Your task to perform on an android device: Check out the new nike air max 2020. Image 0: 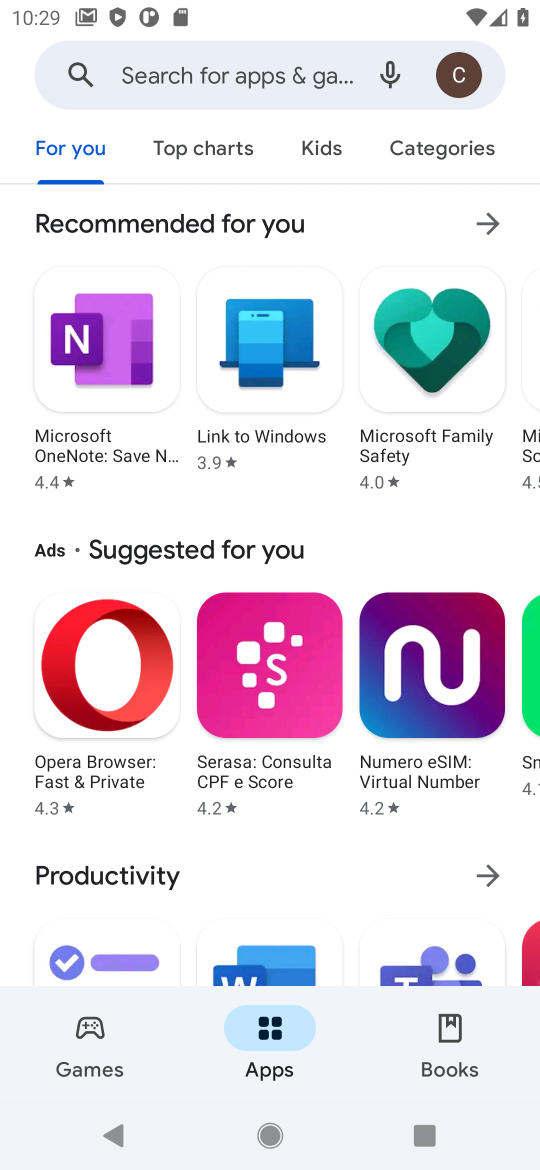
Step 0: press back button
Your task to perform on an android device: Check out the new nike air max 2020. Image 1: 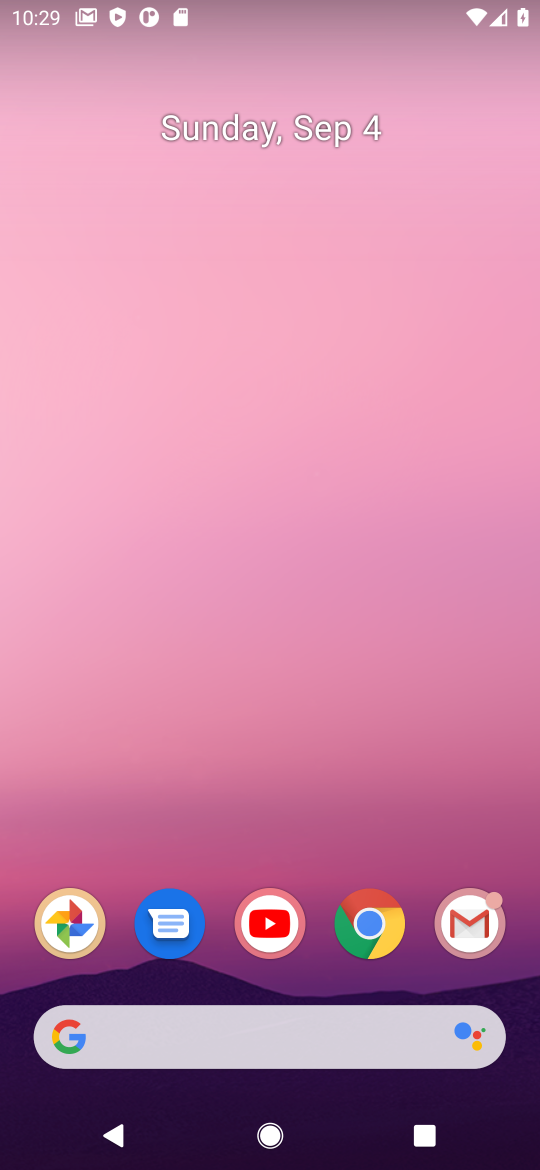
Step 1: click (176, 1052)
Your task to perform on an android device: Check out the new nike air max 2020. Image 2: 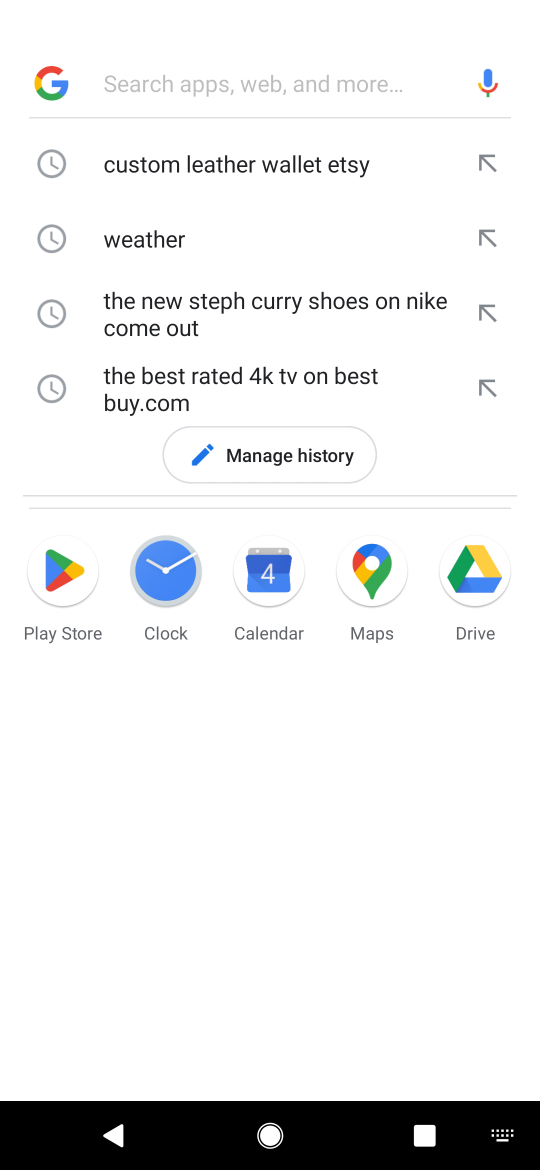
Step 2: press back button
Your task to perform on an android device: Check out the new nike air max 2020. Image 3: 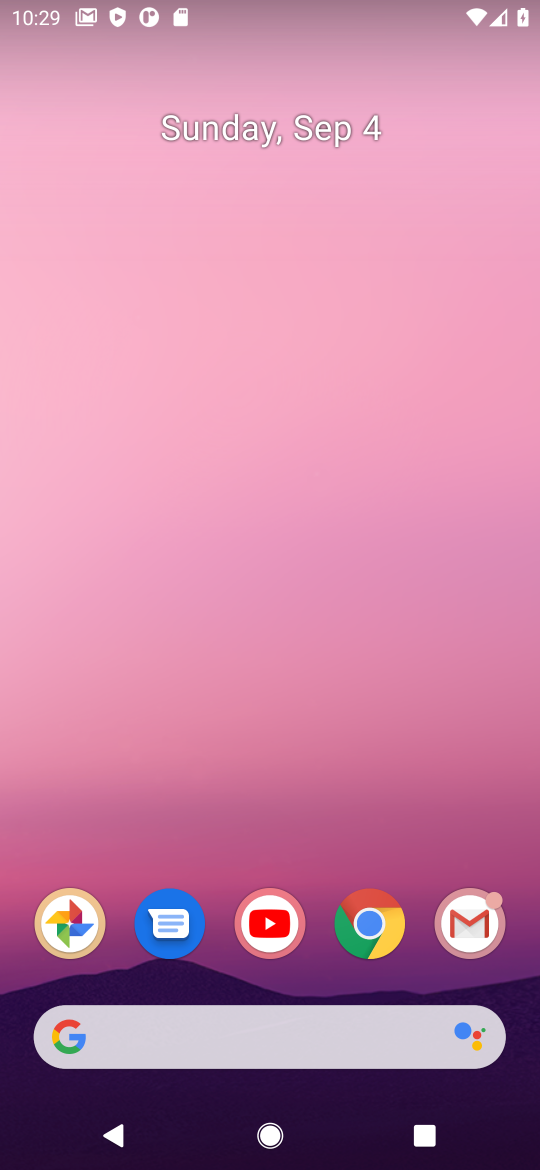
Step 3: click (361, 929)
Your task to perform on an android device: Check out the new nike air max 2020. Image 4: 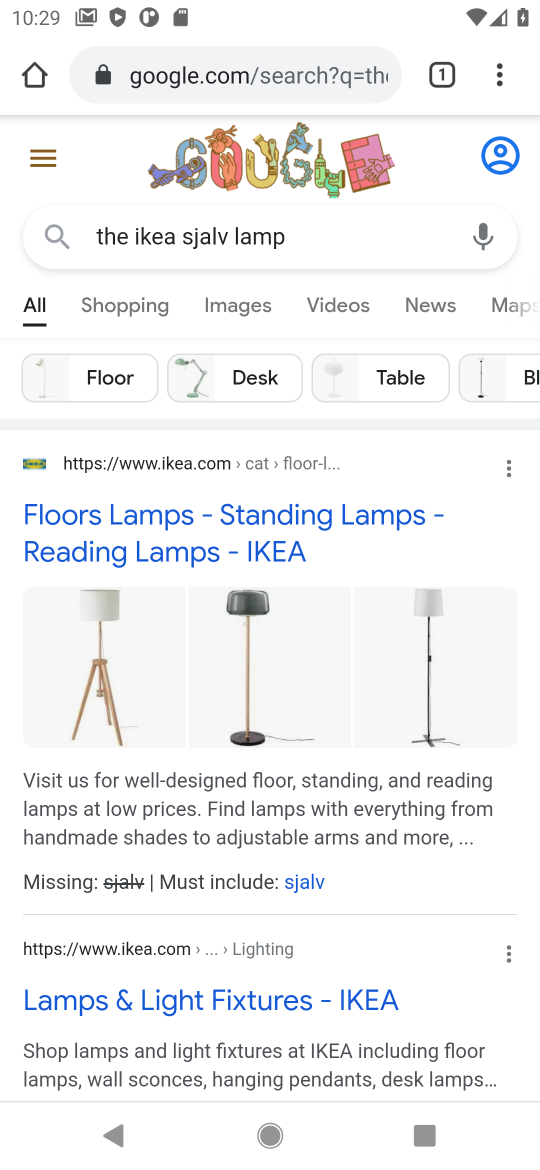
Step 4: click (222, 68)
Your task to perform on an android device: Check out the new nike air max 2020. Image 5: 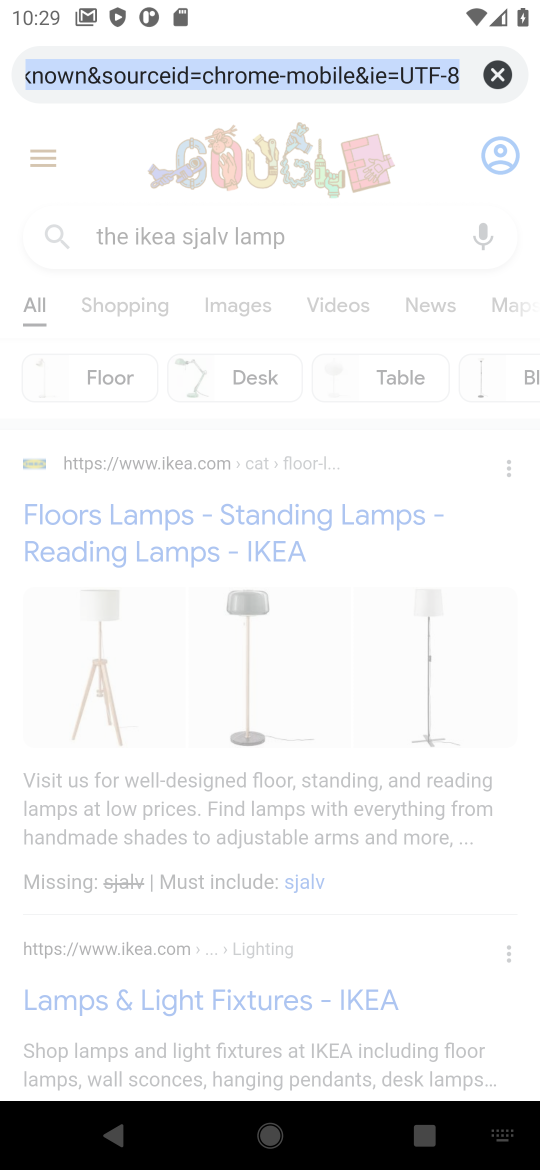
Step 5: click (497, 73)
Your task to perform on an android device: Check out the new nike air max 2020. Image 6: 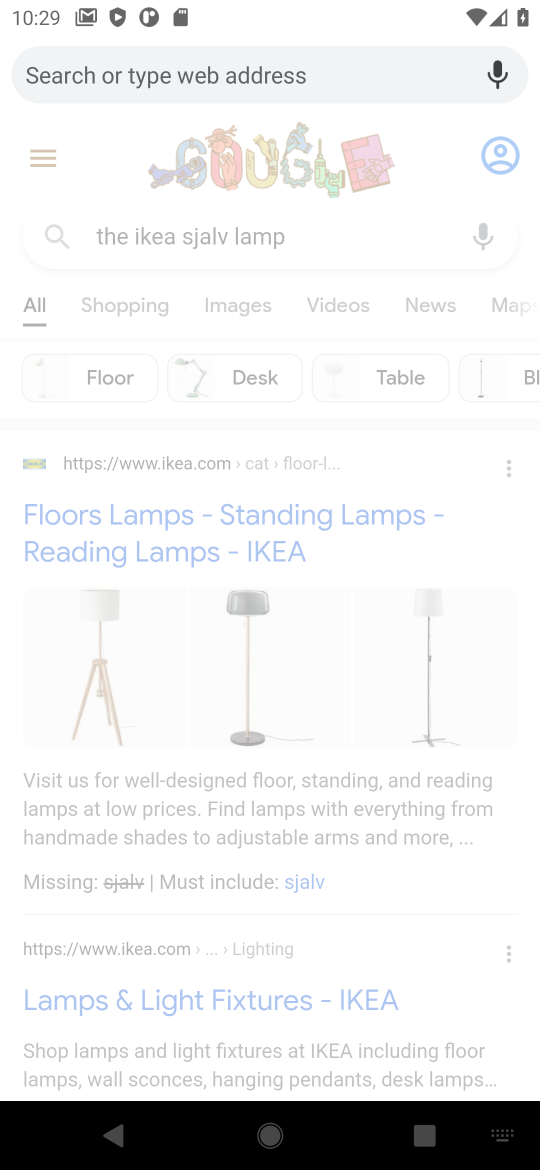
Step 6: type "the new nike air max 2020."
Your task to perform on an android device: Check out the new nike air max 2020. Image 7: 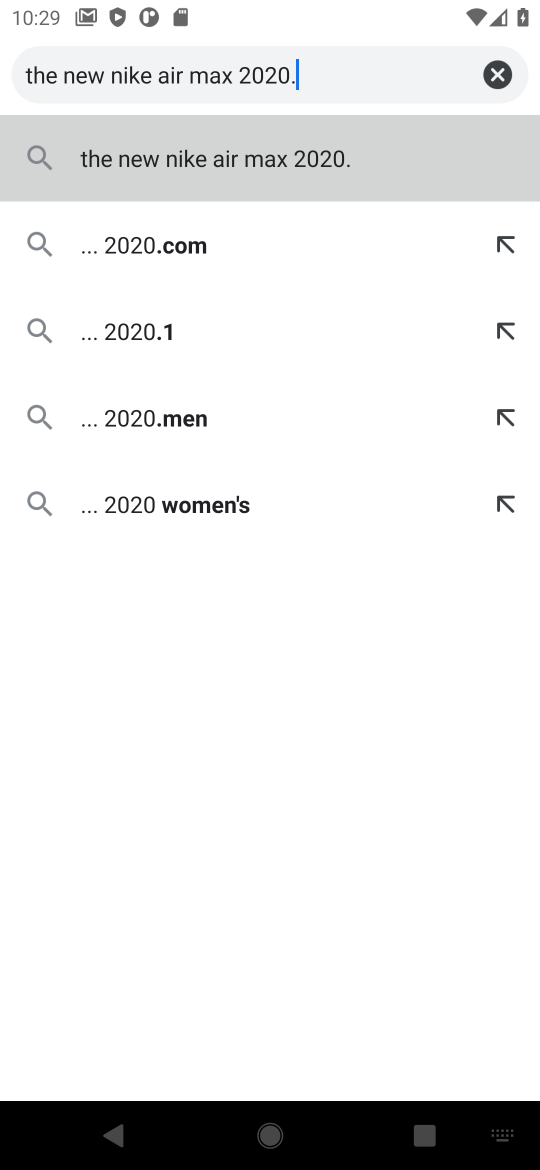
Step 7: click (246, 155)
Your task to perform on an android device: Check out the new nike air max 2020. Image 8: 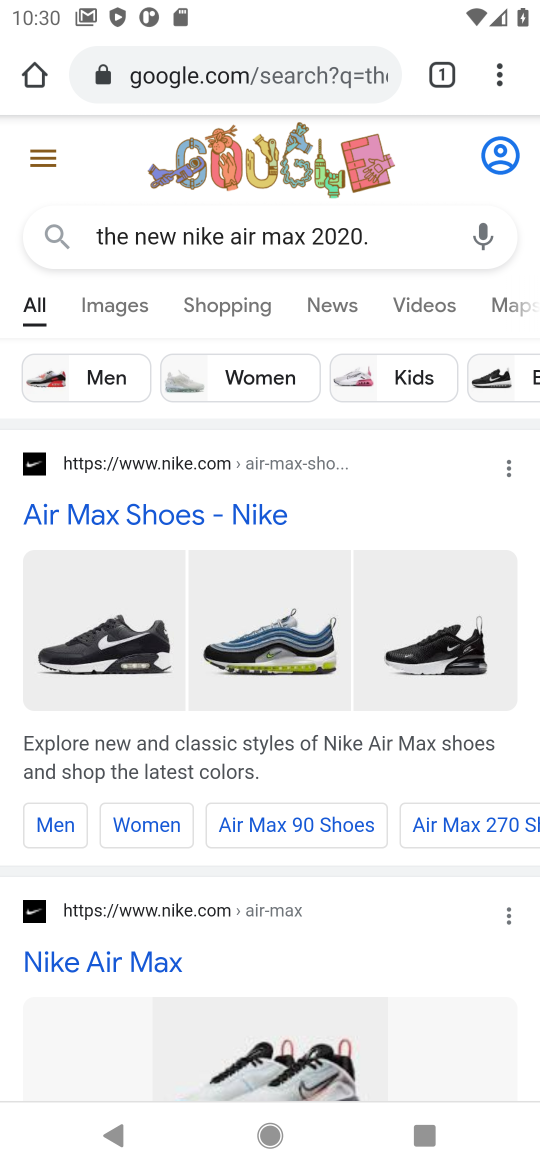
Step 8: drag from (439, 952) to (427, 421)
Your task to perform on an android device: Check out the new nike air max 2020. Image 9: 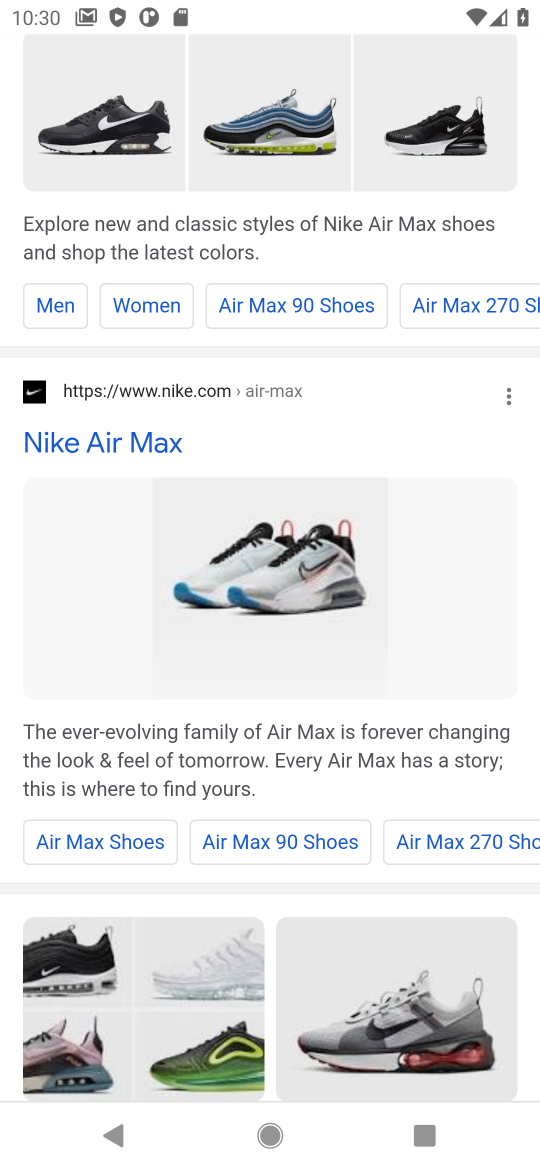
Step 9: click (332, 38)
Your task to perform on an android device: Check out the new nike air max 2020. Image 10: 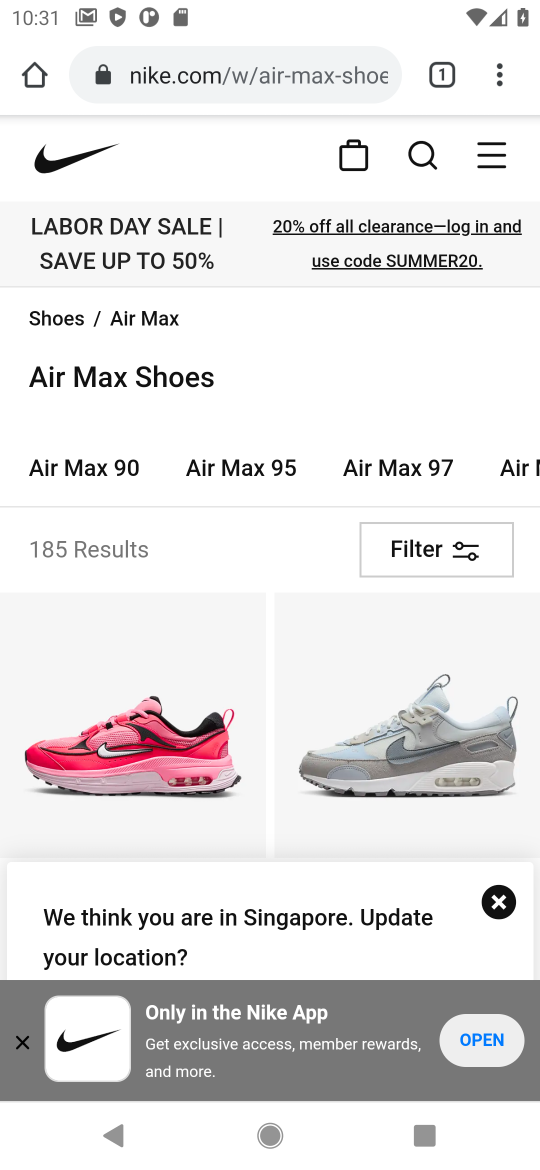
Step 10: task complete